Your task to perform on an android device: Open Google Chrome and open the bookmarks view Image 0: 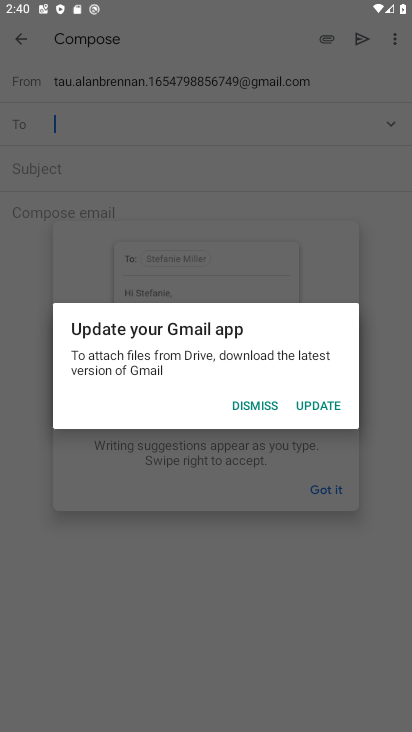
Step 0: click (320, 399)
Your task to perform on an android device: Open Google Chrome and open the bookmarks view Image 1: 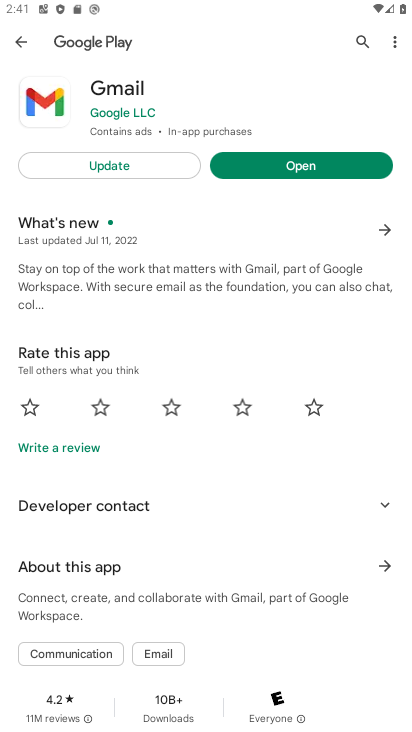
Step 1: press home button
Your task to perform on an android device: Open Google Chrome and open the bookmarks view Image 2: 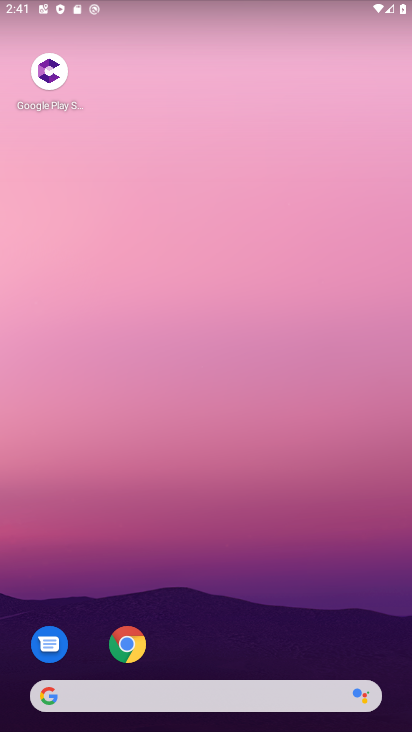
Step 2: click (149, 633)
Your task to perform on an android device: Open Google Chrome and open the bookmarks view Image 3: 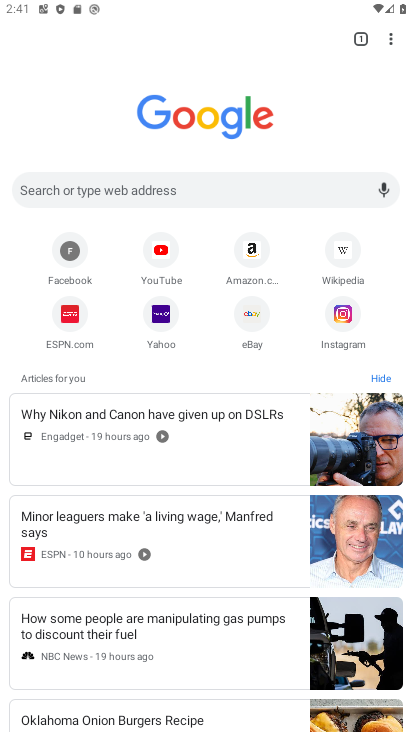
Step 3: click (386, 40)
Your task to perform on an android device: Open Google Chrome and open the bookmarks view Image 4: 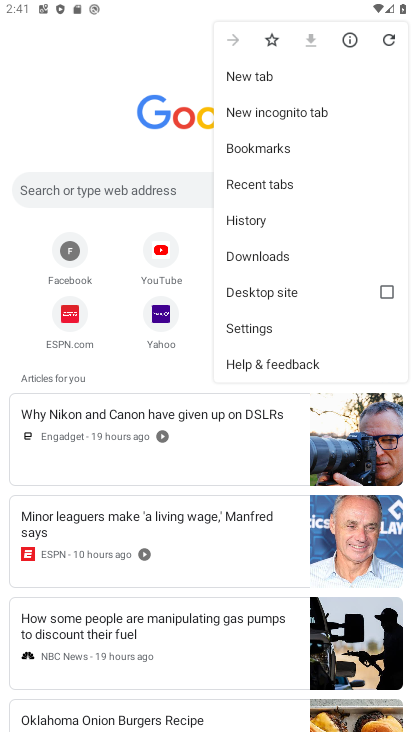
Step 4: click (280, 140)
Your task to perform on an android device: Open Google Chrome and open the bookmarks view Image 5: 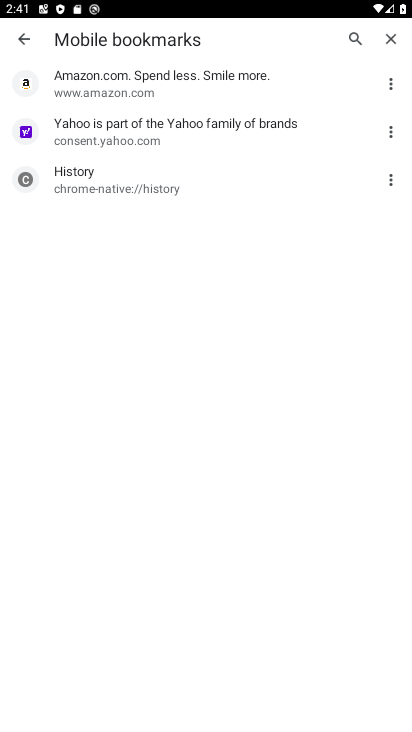
Step 5: task complete